Your task to perform on an android device: toggle wifi Image 0: 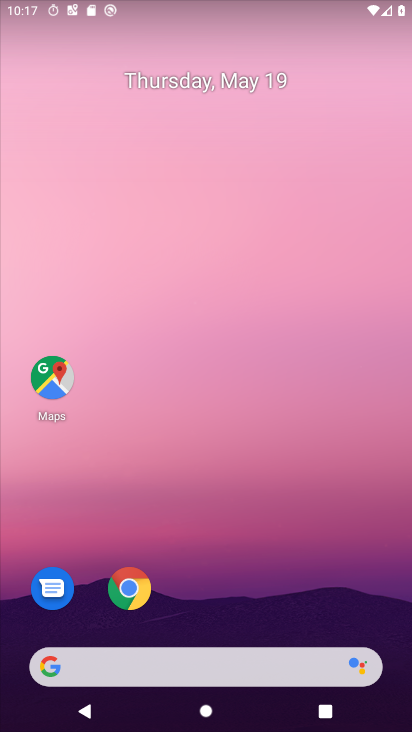
Step 0: press home button
Your task to perform on an android device: toggle wifi Image 1: 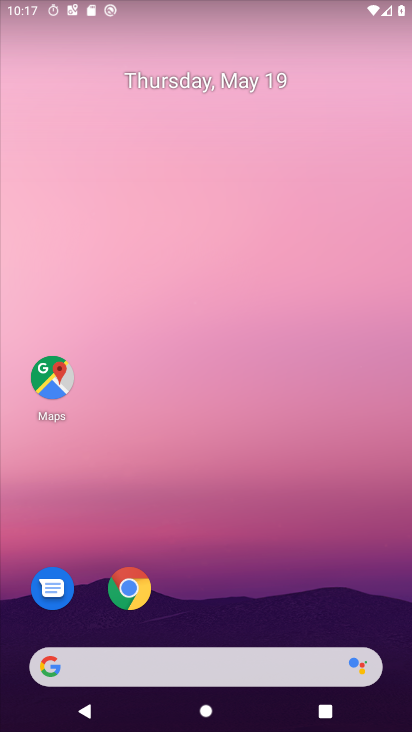
Step 1: drag from (135, 667) to (312, 180)
Your task to perform on an android device: toggle wifi Image 2: 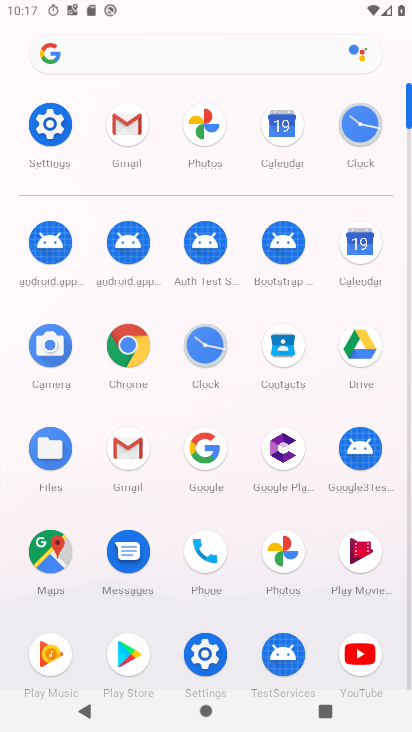
Step 2: click (46, 138)
Your task to perform on an android device: toggle wifi Image 3: 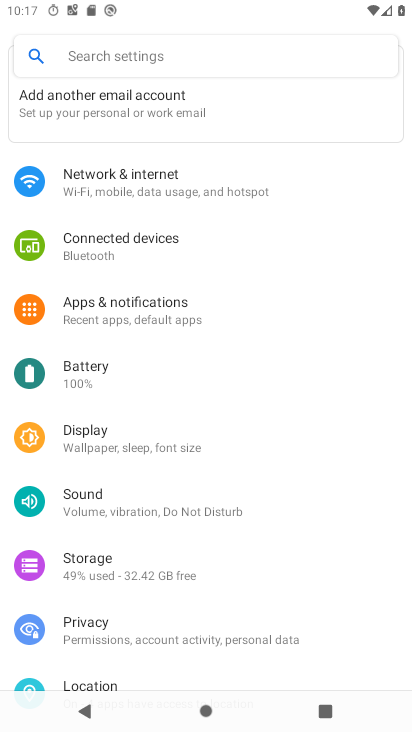
Step 3: click (169, 187)
Your task to perform on an android device: toggle wifi Image 4: 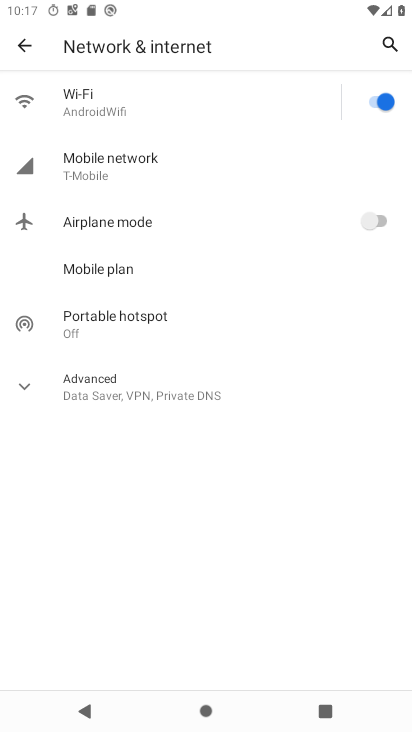
Step 4: click (370, 104)
Your task to perform on an android device: toggle wifi Image 5: 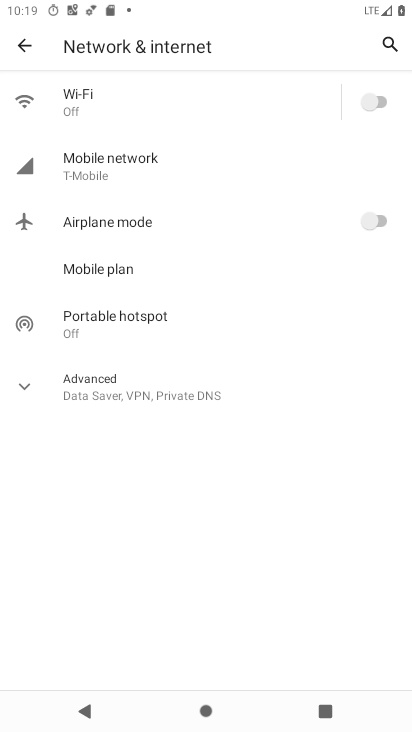
Step 5: task complete